Your task to perform on an android device: turn on notifications settings in the gmail app Image 0: 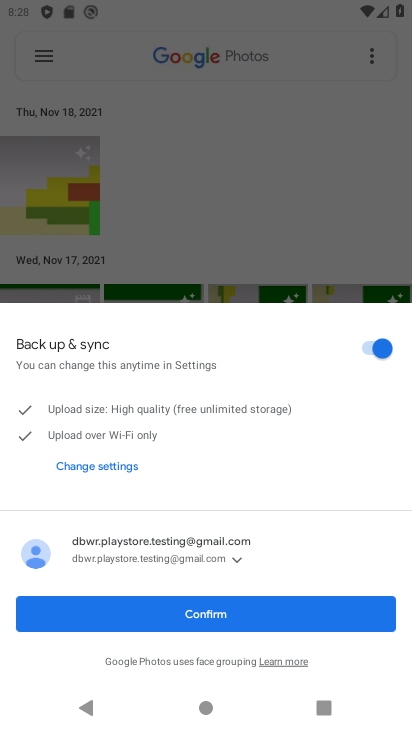
Step 0: press home button
Your task to perform on an android device: turn on notifications settings in the gmail app Image 1: 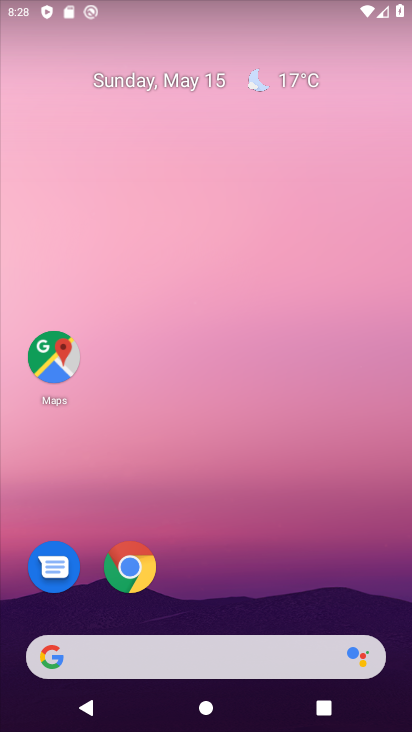
Step 1: drag from (259, 638) to (246, 41)
Your task to perform on an android device: turn on notifications settings in the gmail app Image 2: 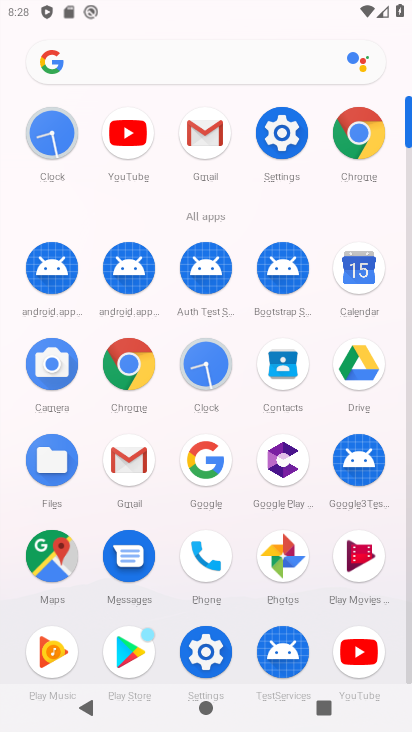
Step 2: click (136, 479)
Your task to perform on an android device: turn on notifications settings in the gmail app Image 3: 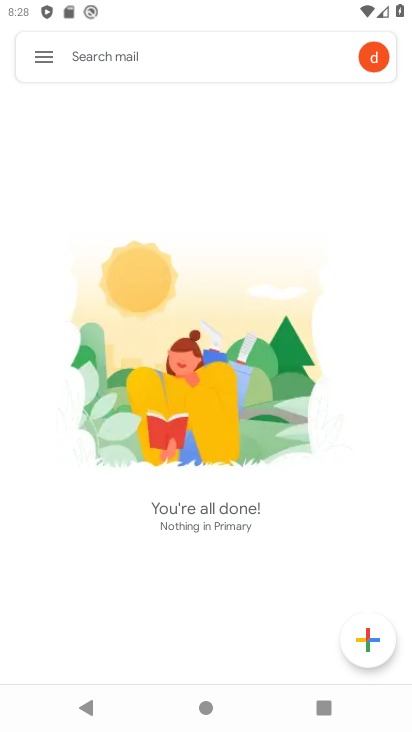
Step 3: click (41, 62)
Your task to perform on an android device: turn on notifications settings in the gmail app Image 4: 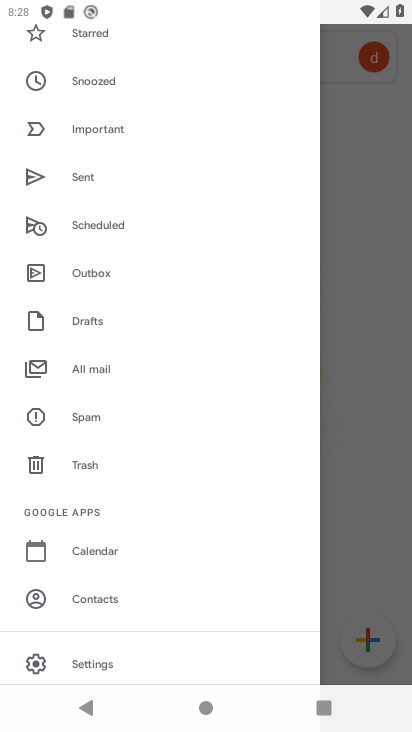
Step 4: click (81, 658)
Your task to perform on an android device: turn on notifications settings in the gmail app Image 5: 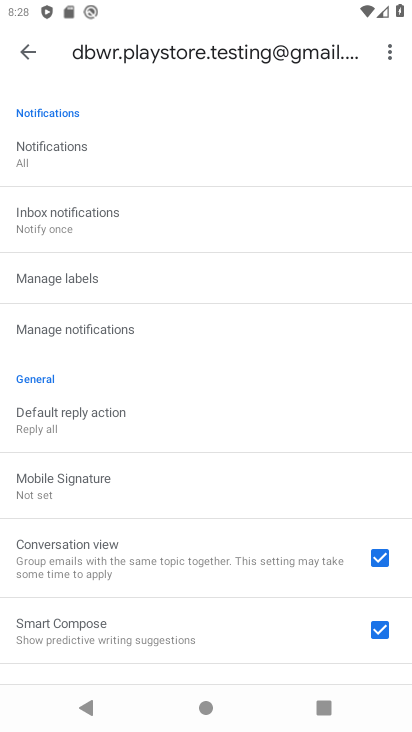
Step 5: drag from (135, 610) to (145, 242)
Your task to perform on an android device: turn on notifications settings in the gmail app Image 6: 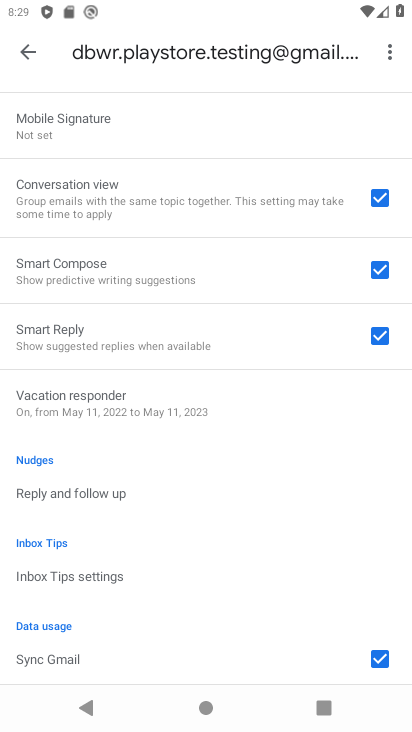
Step 6: drag from (117, 524) to (157, 101)
Your task to perform on an android device: turn on notifications settings in the gmail app Image 7: 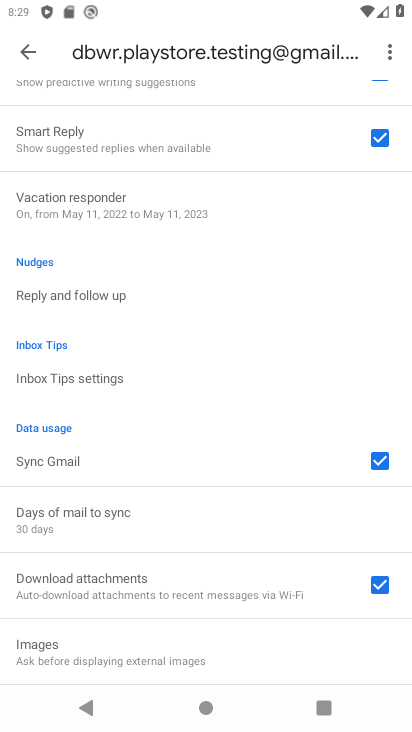
Step 7: drag from (155, 112) to (135, 563)
Your task to perform on an android device: turn on notifications settings in the gmail app Image 8: 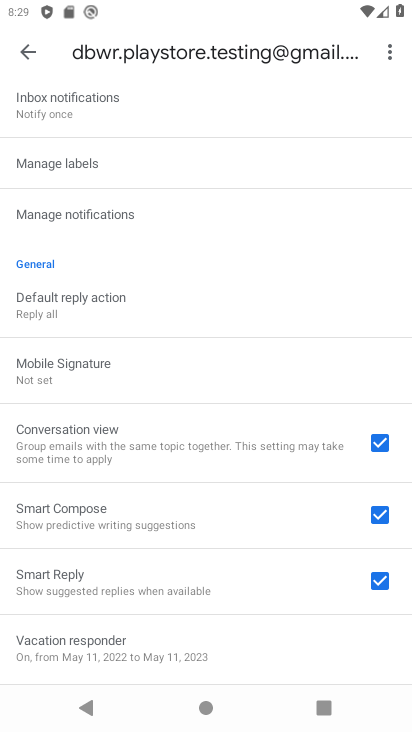
Step 8: click (112, 213)
Your task to perform on an android device: turn on notifications settings in the gmail app Image 9: 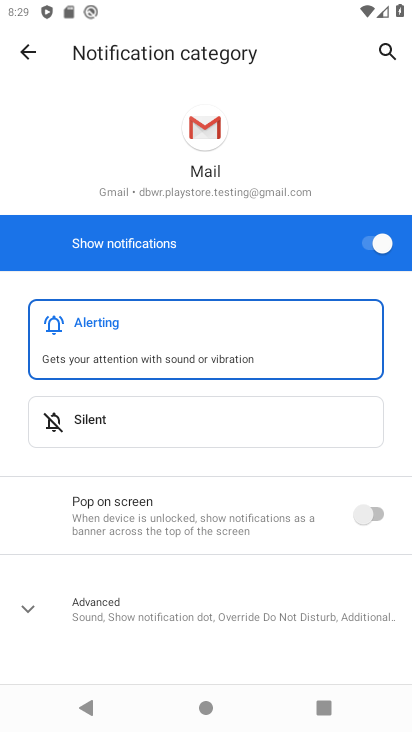
Step 9: task complete